Your task to perform on an android device: turn off data saver in the chrome app Image 0: 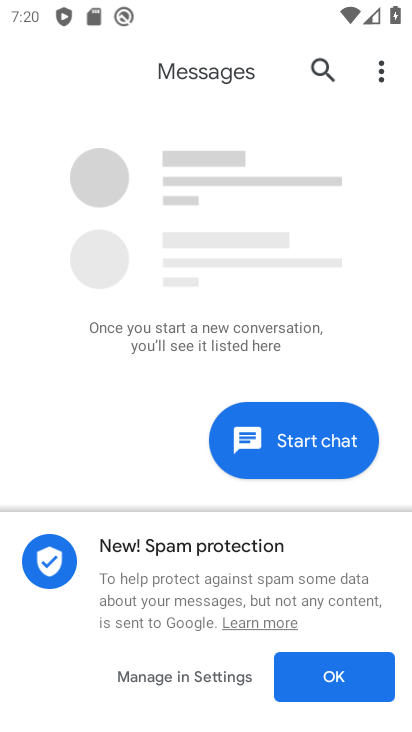
Step 0: press home button
Your task to perform on an android device: turn off data saver in the chrome app Image 1: 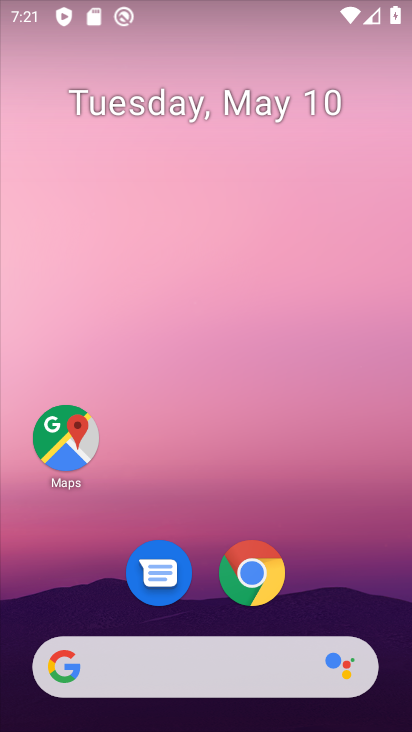
Step 1: drag from (368, 618) to (377, 130)
Your task to perform on an android device: turn off data saver in the chrome app Image 2: 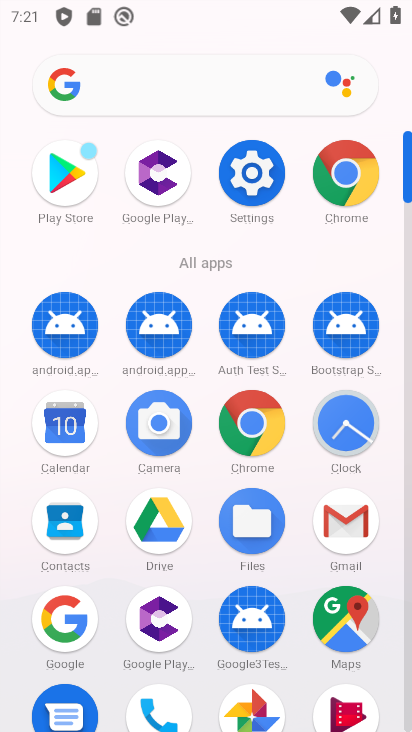
Step 2: click (245, 414)
Your task to perform on an android device: turn off data saver in the chrome app Image 3: 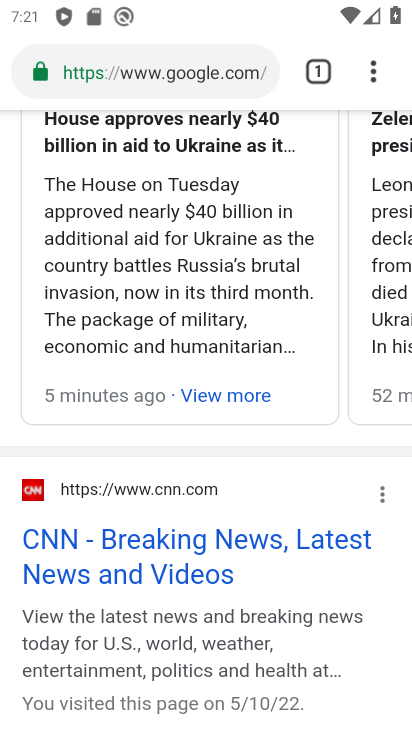
Step 3: drag from (379, 73) to (166, 563)
Your task to perform on an android device: turn off data saver in the chrome app Image 4: 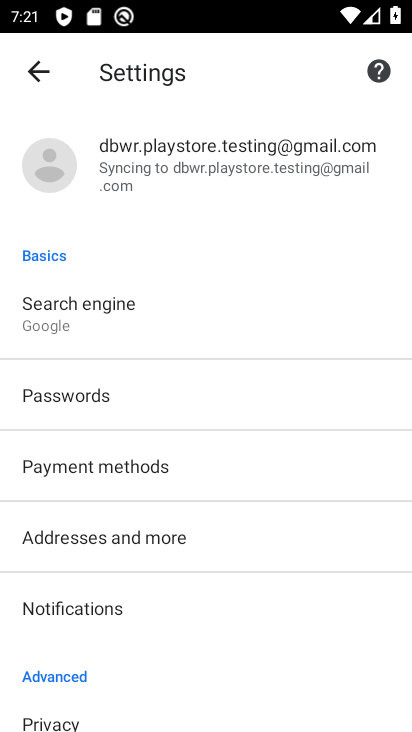
Step 4: drag from (133, 651) to (204, 324)
Your task to perform on an android device: turn off data saver in the chrome app Image 5: 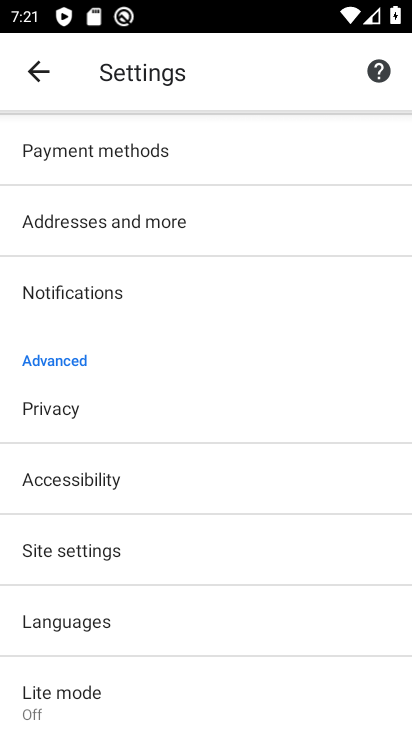
Step 5: drag from (180, 649) to (232, 355)
Your task to perform on an android device: turn off data saver in the chrome app Image 6: 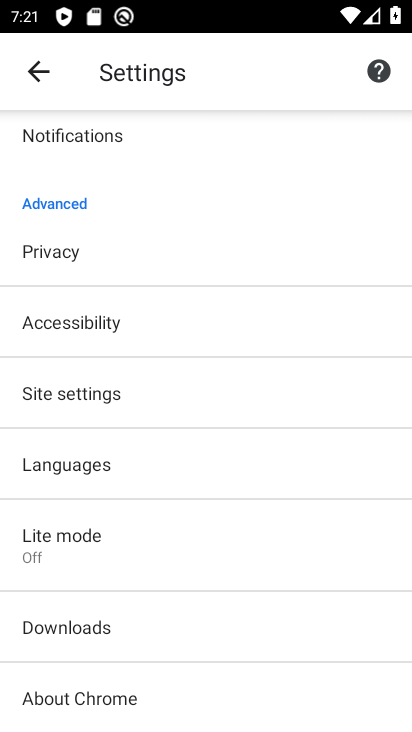
Step 6: click (45, 548)
Your task to perform on an android device: turn off data saver in the chrome app Image 7: 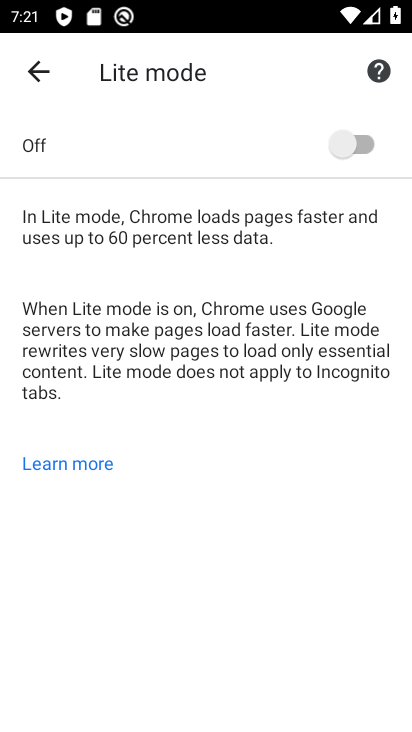
Step 7: task complete